Your task to perform on an android device: turn on improve location accuracy Image 0: 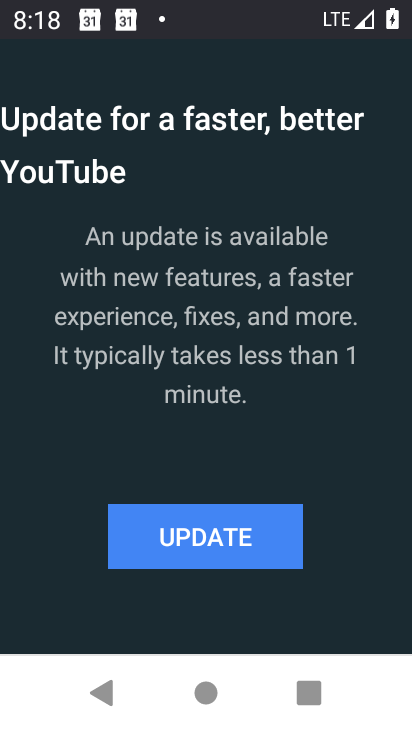
Step 0: press home button
Your task to perform on an android device: turn on improve location accuracy Image 1: 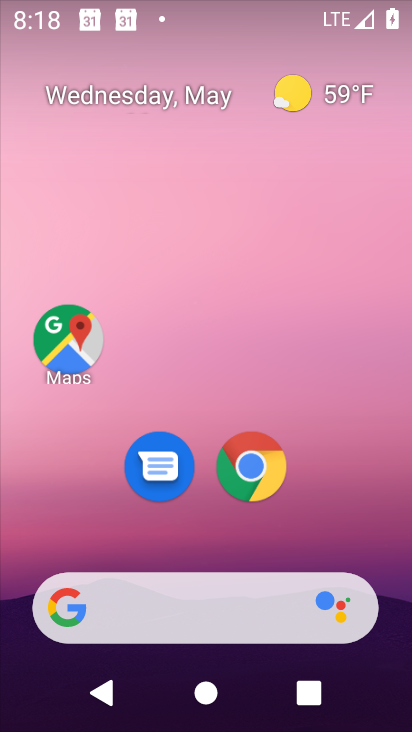
Step 1: drag from (318, 495) to (340, 269)
Your task to perform on an android device: turn on improve location accuracy Image 2: 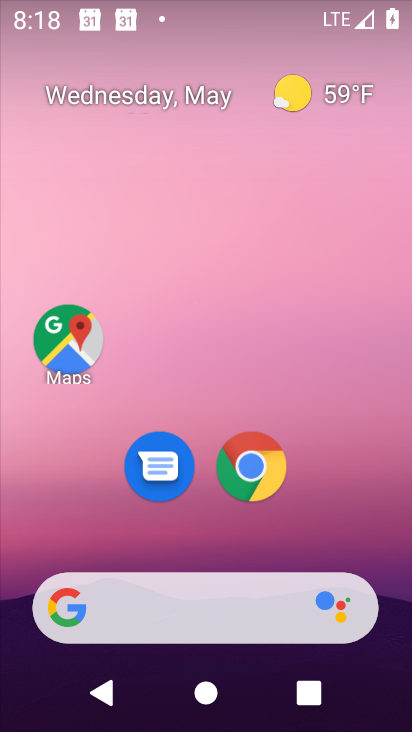
Step 2: drag from (339, 502) to (359, 132)
Your task to perform on an android device: turn on improve location accuracy Image 3: 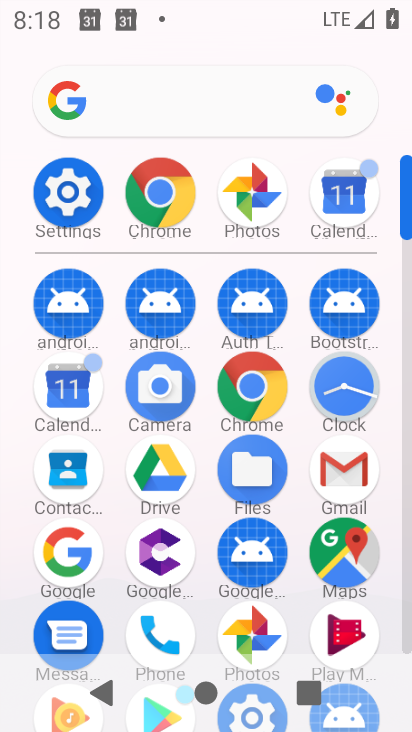
Step 3: click (71, 191)
Your task to perform on an android device: turn on improve location accuracy Image 4: 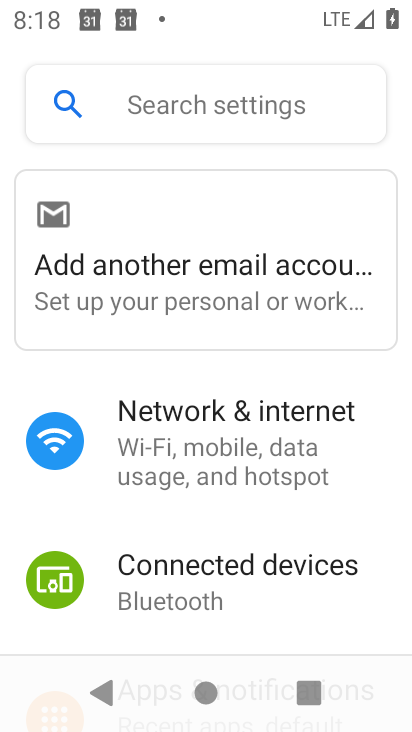
Step 4: drag from (250, 620) to (289, 219)
Your task to perform on an android device: turn on improve location accuracy Image 5: 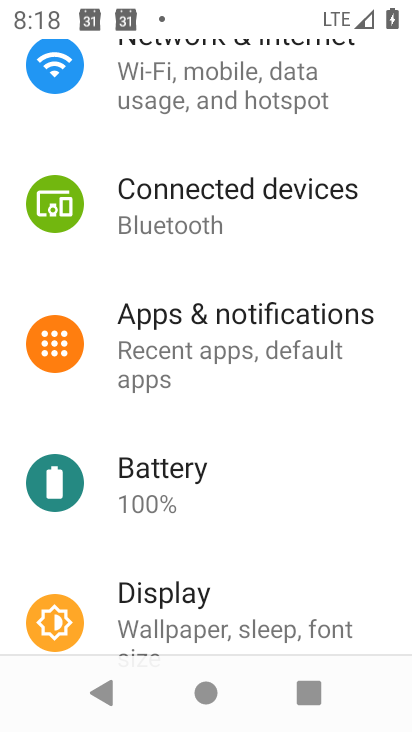
Step 5: drag from (210, 610) to (270, 169)
Your task to perform on an android device: turn on improve location accuracy Image 6: 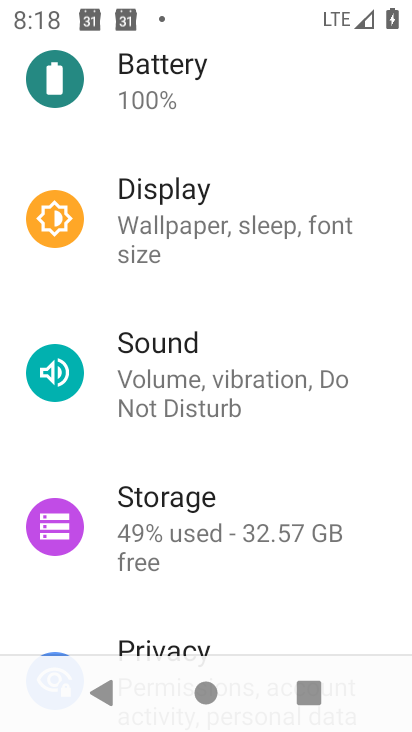
Step 6: drag from (240, 586) to (251, 215)
Your task to perform on an android device: turn on improve location accuracy Image 7: 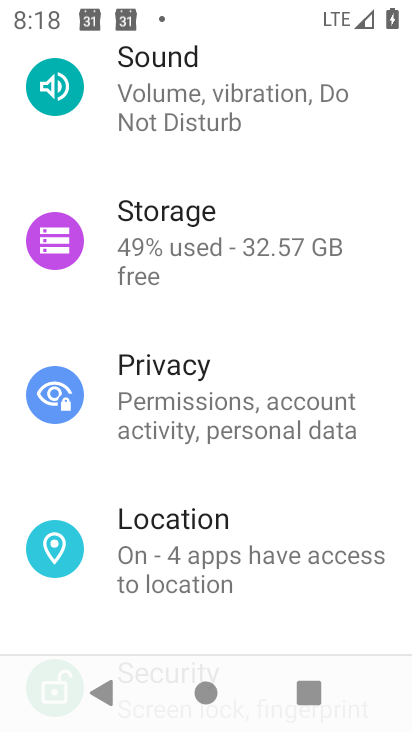
Step 7: click (201, 551)
Your task to perform on an android device: turn on improve location accuracy Image 8: 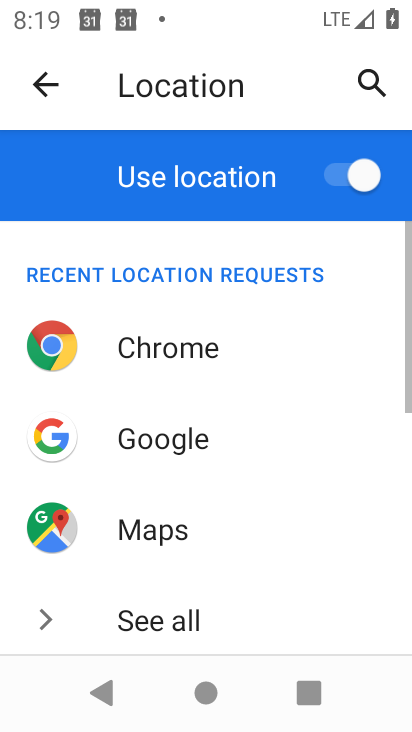
Step 8: drag from (233, 582) to (280, 187)
Your task to perform on an android device: turn on improve location accuracy Image 9: 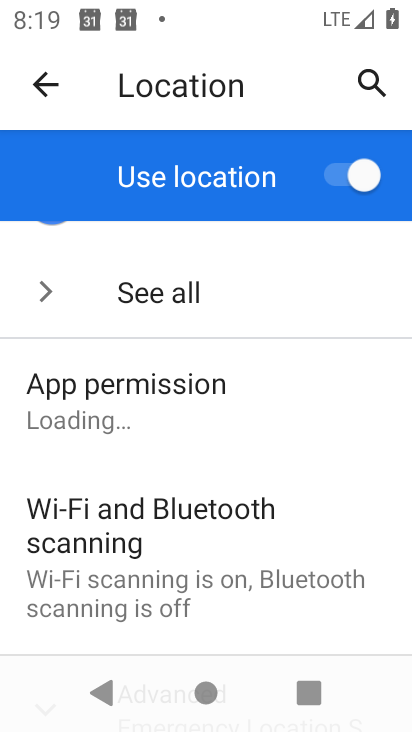
Step 9: drag from (205, 559) to (278, 242)
Your task to perform on an android device: turn on improve location accuracy Image 10: 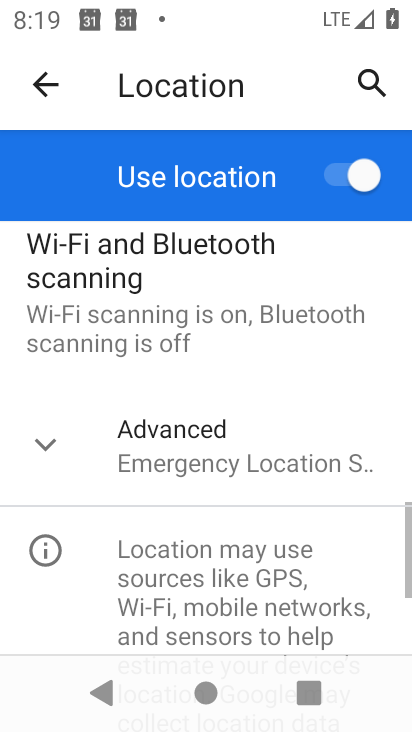
Step 10: click (194, 468)
Your task to perform on an android device: turn on improve location accuracy Image 11: 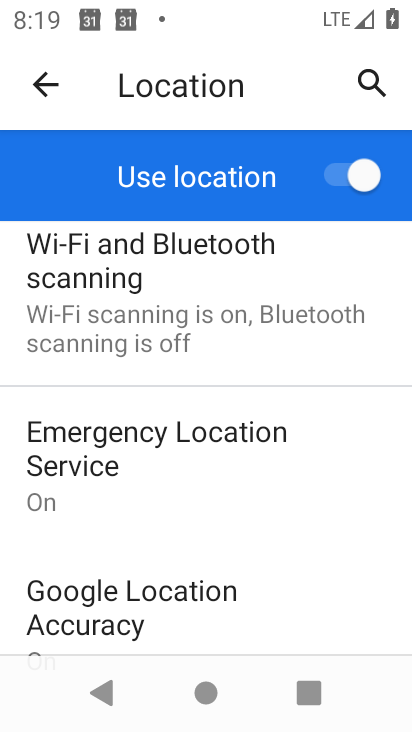
Step 11: click (179, 602)
Your task to perform on an android device: turn on improve location accuracy Image 12: 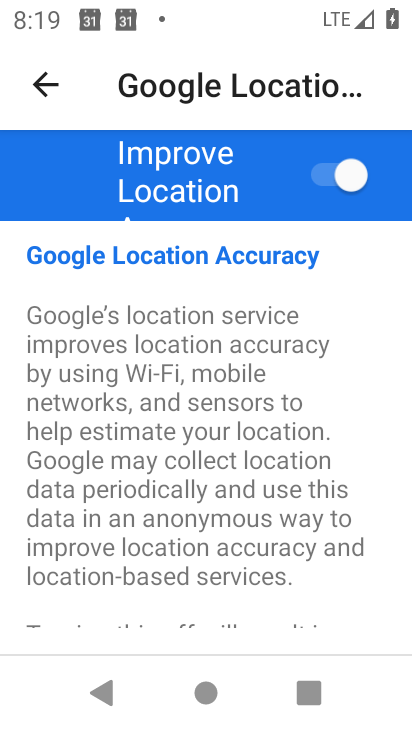
Step 12: task complete